Your task to perform on an android device: Find coffee shops on Maps Image 0: 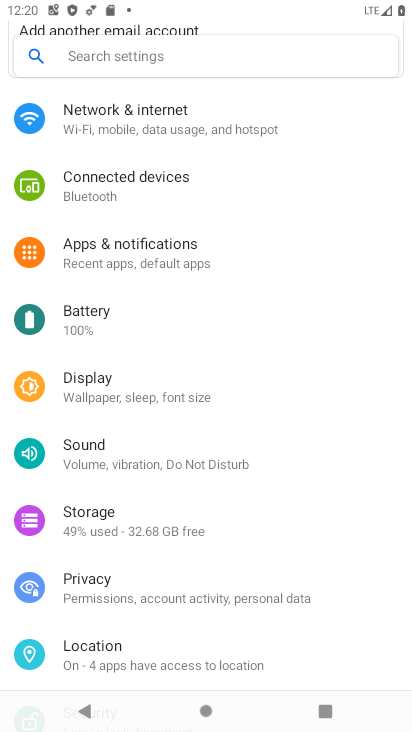
Step 0: press home button
Your task to perform on an android device: Find coffee shops on Maps Image 1: 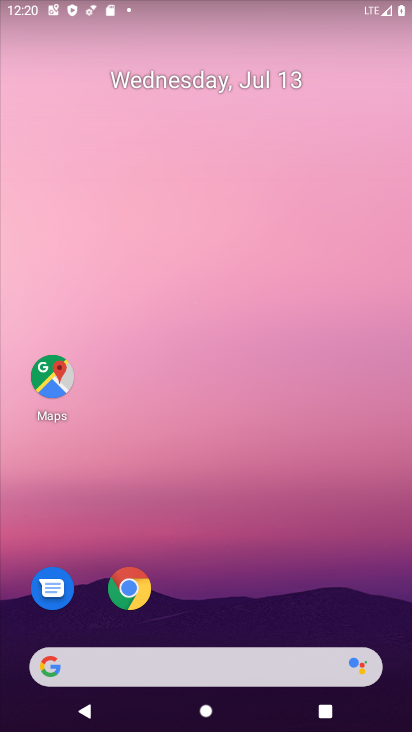
Step 1: click (55, 370)
Your task to perform on an android device: Find coffee shops on Maps Image 2: 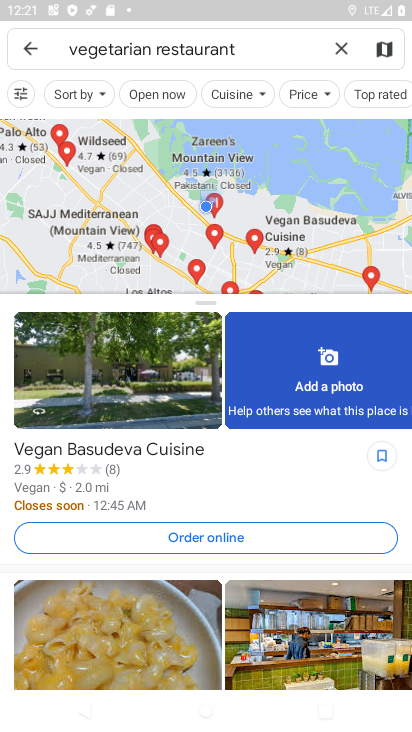
Step 2: click (339, 49)
Your task to perform on an android device: Find coffee shops on Maps Image 3: 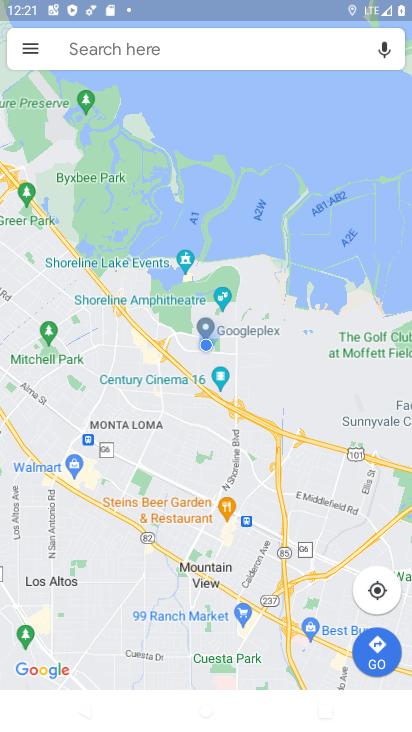
Step 3: click (106, 51)
Your task to perform on an android device: Find coffee shops on Maps Image 4: 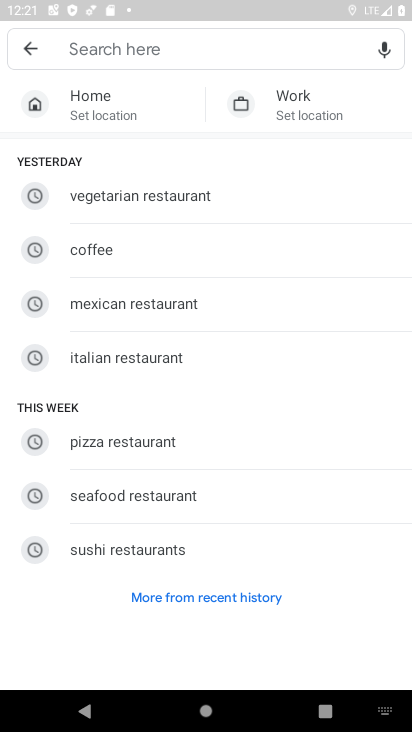
Step 4: type "coffee shops"
Your task to perform on an android device: Find coffee shops on Maps Image 5: 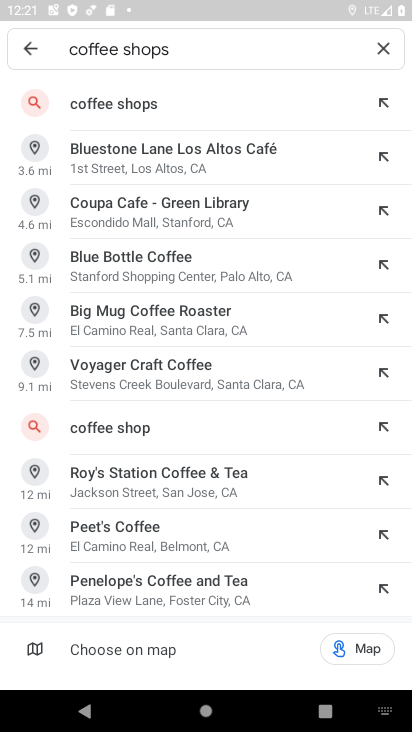
Step 5: click (137, 91)
Your task to perform on an android device: Find coffee shops on Maps Image 6: 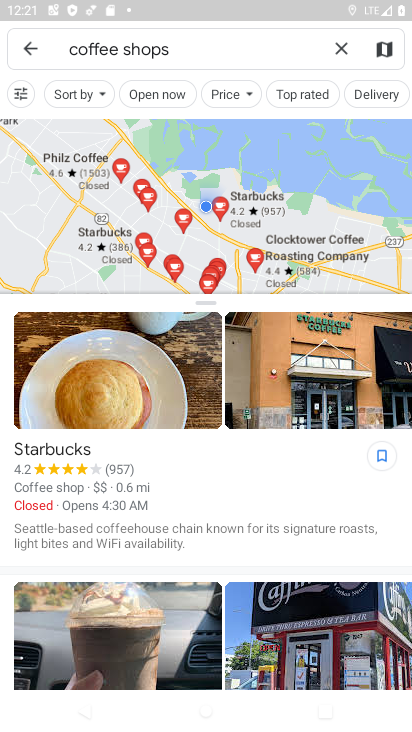
Step 6: task complete